Your task to perform on an android device: change notification settings in the gmail app Image 0: 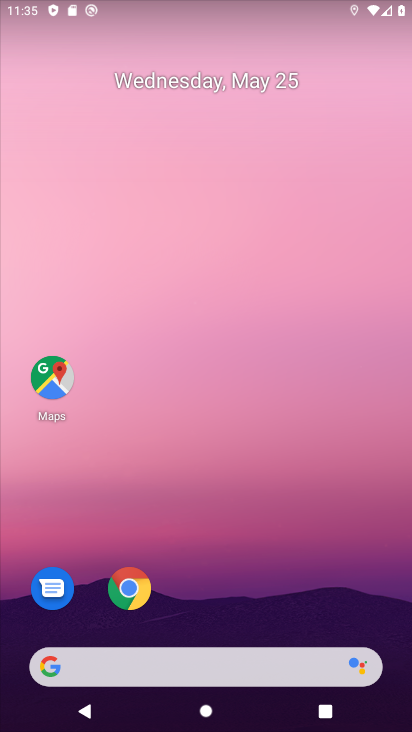
Step 0: drag from (199, 616) to (236, 209)
Your task to perform on an android device: change notification settings in the gmail app Image 1: 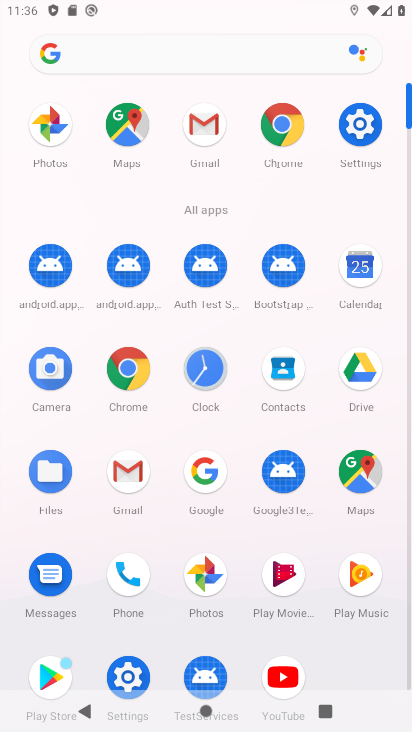
Step 1: click (201, 123)
Your task to perform on an android device: change notification settings in the gmail app Image 2: 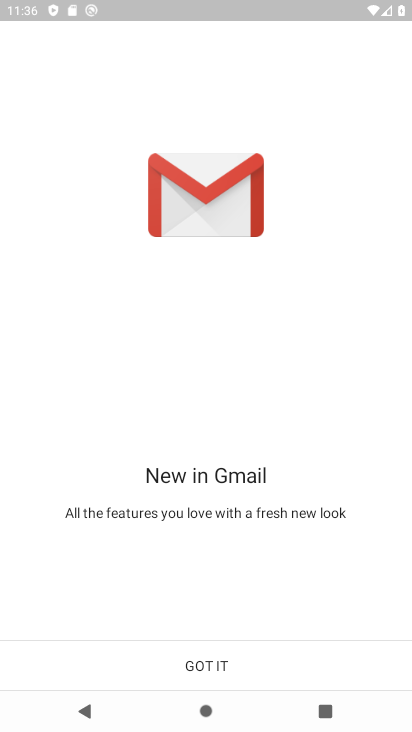
Step 2: click (203, 666)
Your task to perform on an android device: change notification settings in the gmail app Image 3: 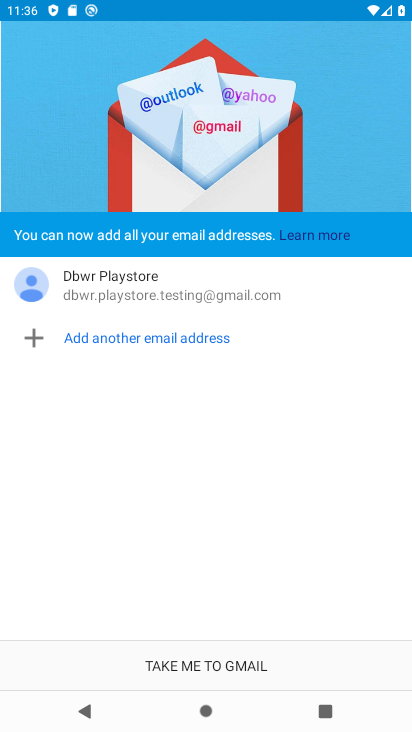
Step 3: click (201, 660)
Your task to perform on an android device: change notification settings in the gmail app Image 4: 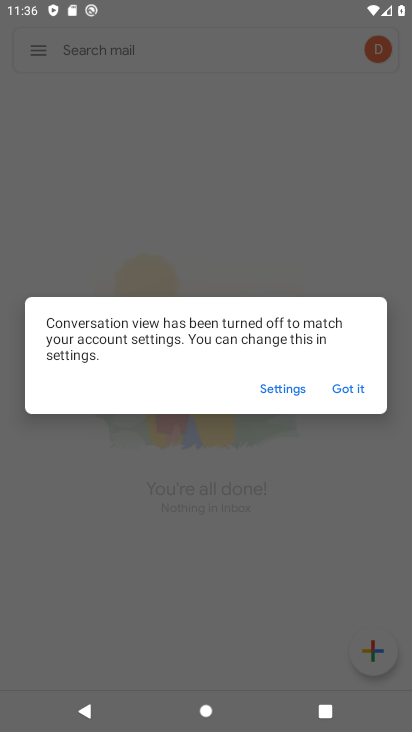
Step 4: click (340, 394)
Your task to perform on an android device: change notification settings in the gmail app Image 5: 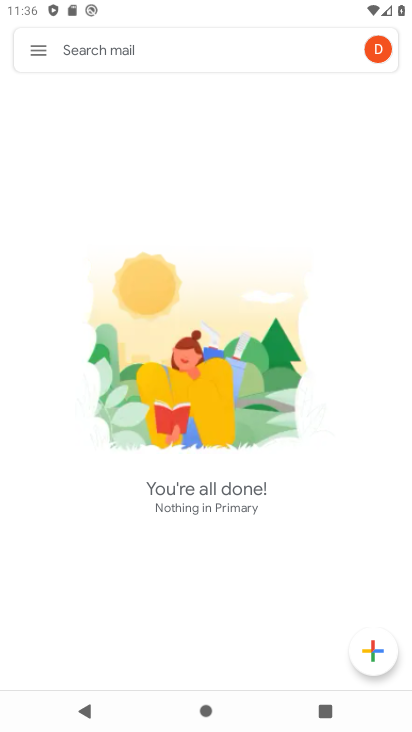
Step 5: click (42, 52)
Your task to perform on an android device: change notification settings in the gmail app Image 6: 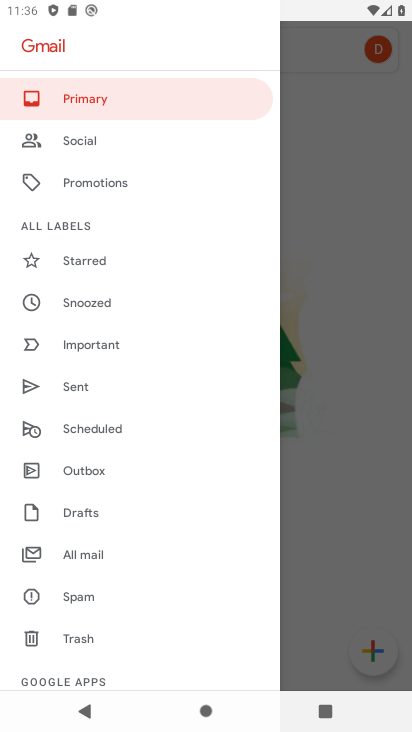
Step 6: drag from (80, 623) to (197, 302)
Your task to perform on an android device: change notification settings in the gmail app Image 7: 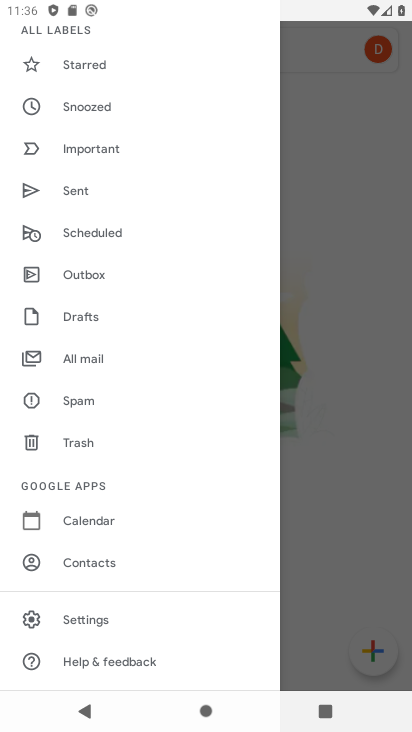
Step 7: click (59, 621)
Your task to perform on an android device: change notification settings in the gmail app Image 8: 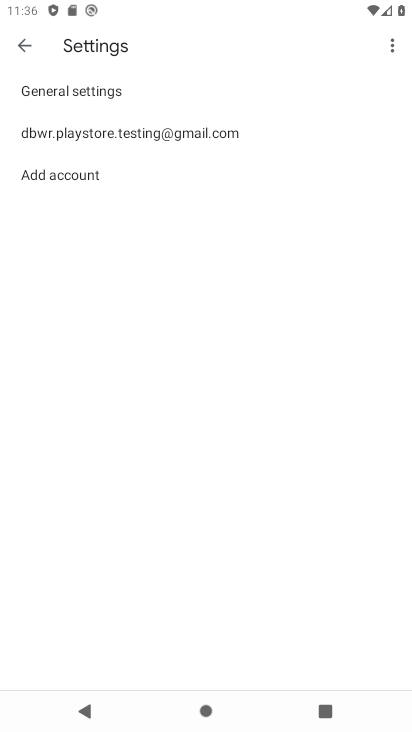
Step 8: click (225, 133)
Your task to perform on an android device: change notification settings in the gmail app Image 9: 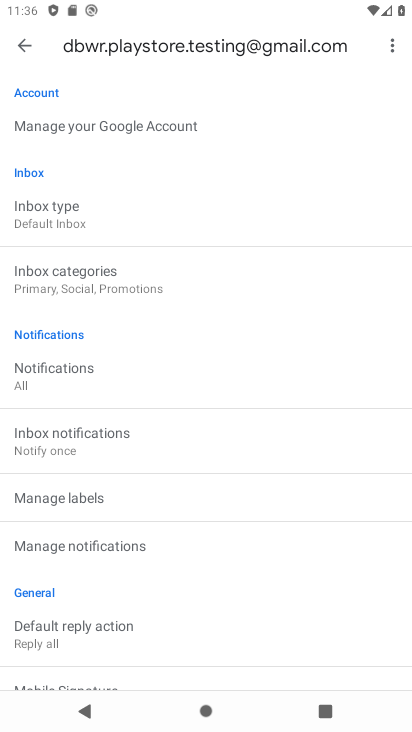
Step 9: click (95, 552)
Your task to perform on an android device: change notification settings in the gmail app Image 10: 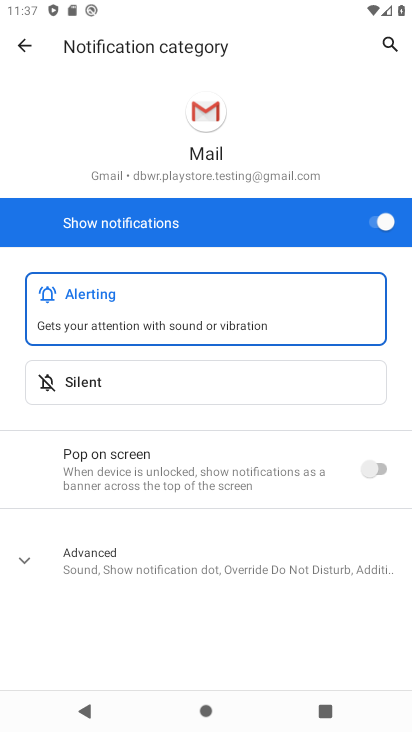
Step 10: click (377, 226)
Your task to perform on an android device: change notification settings in the gmail app Image 11: 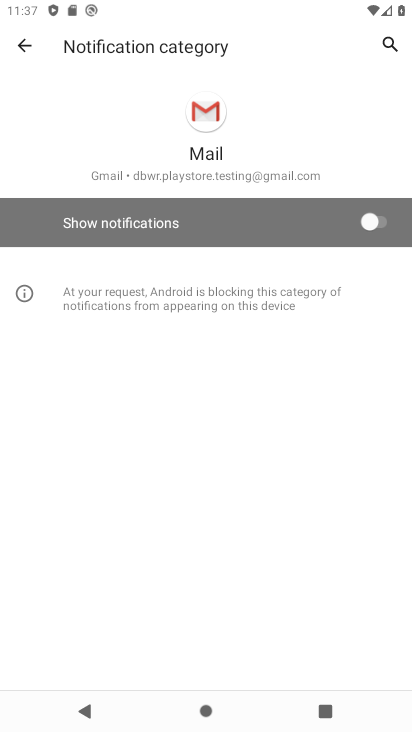
Step 11: task complete